Your task to perform on an android device: Go to Google Image 0: 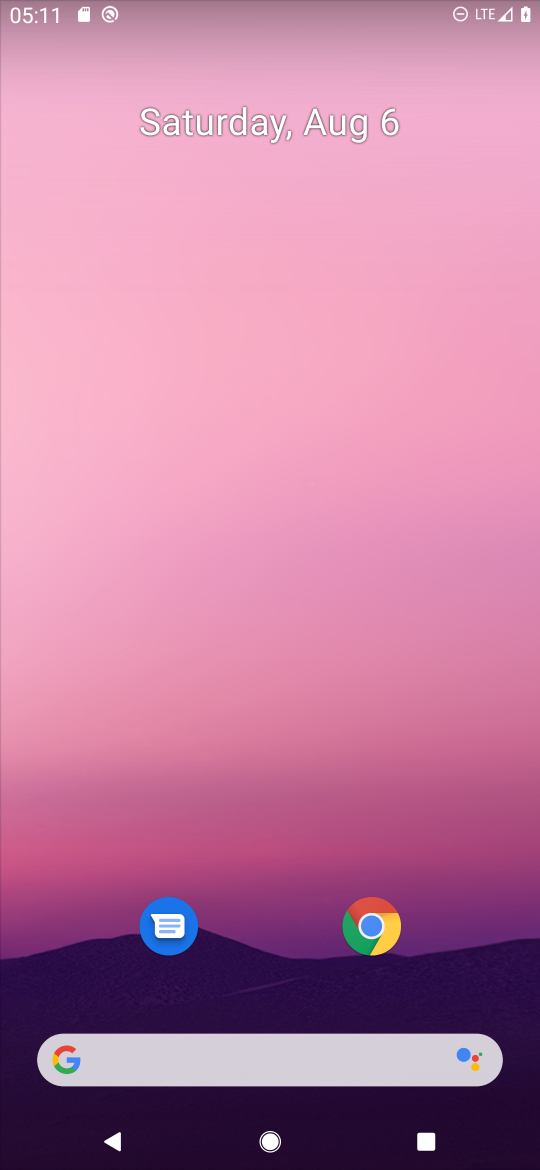
Step 0: drag from (235, 980) to (266, 315)
Your task to perform on an android device: Go to Google Image 1: 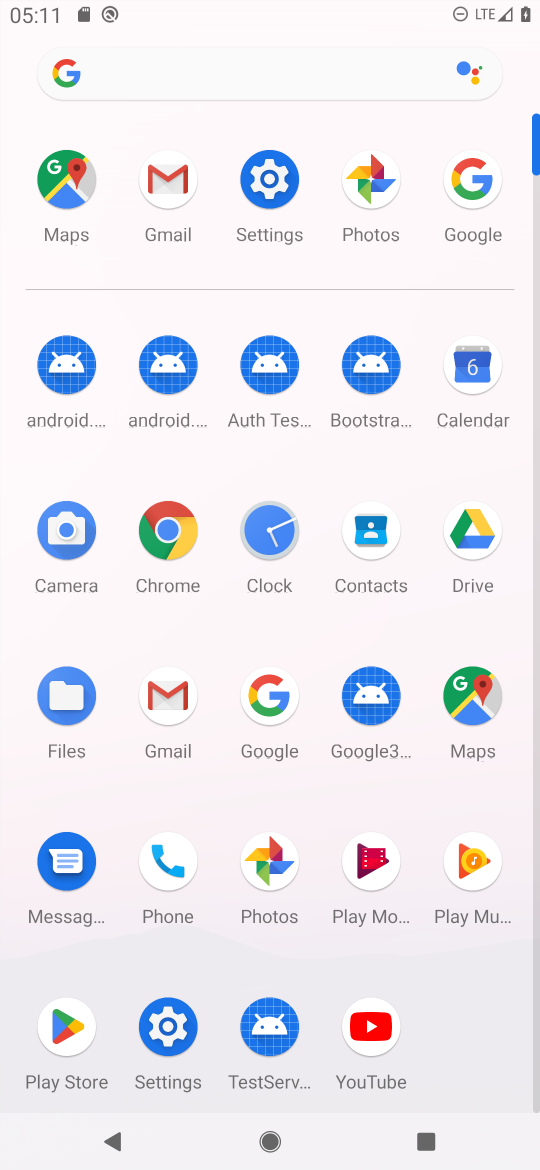
Step 1: click (487, 180)
Your task to perform on an android device: Go to Google Image 2: 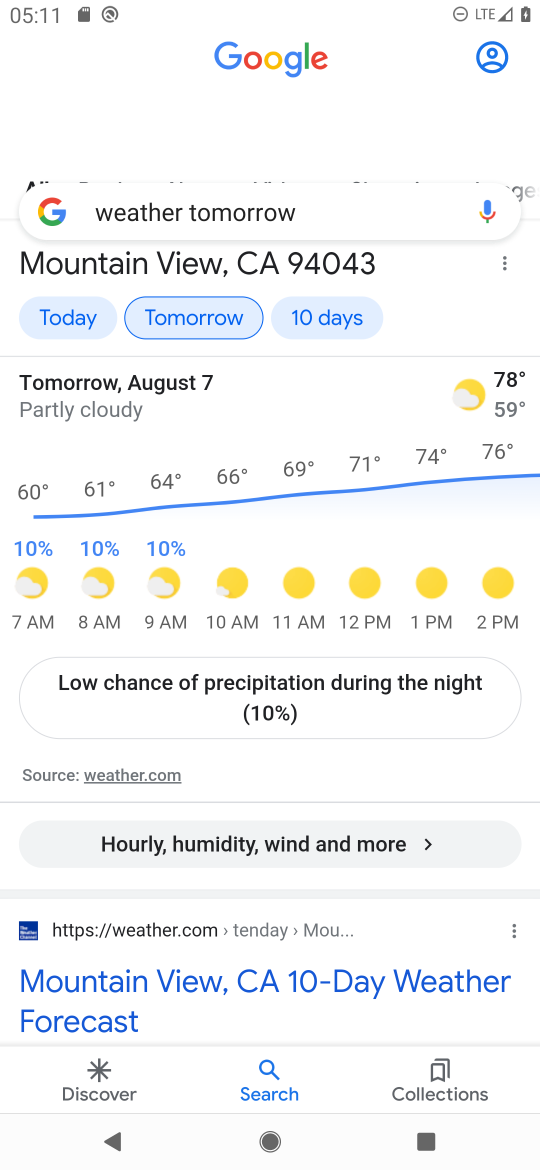
Step 2: task complete